Your task to perform on an android device: refresh tabs in the chrome app Image 0: 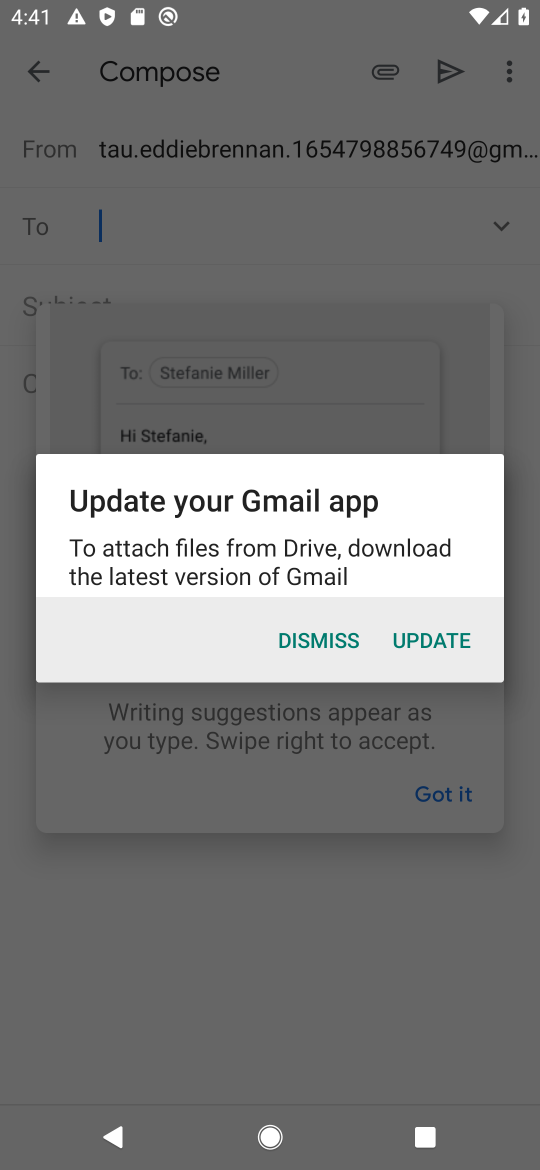
Step 0: press home button
Your task to perform on an android device: refresh tabs in the chrome app Image 1: 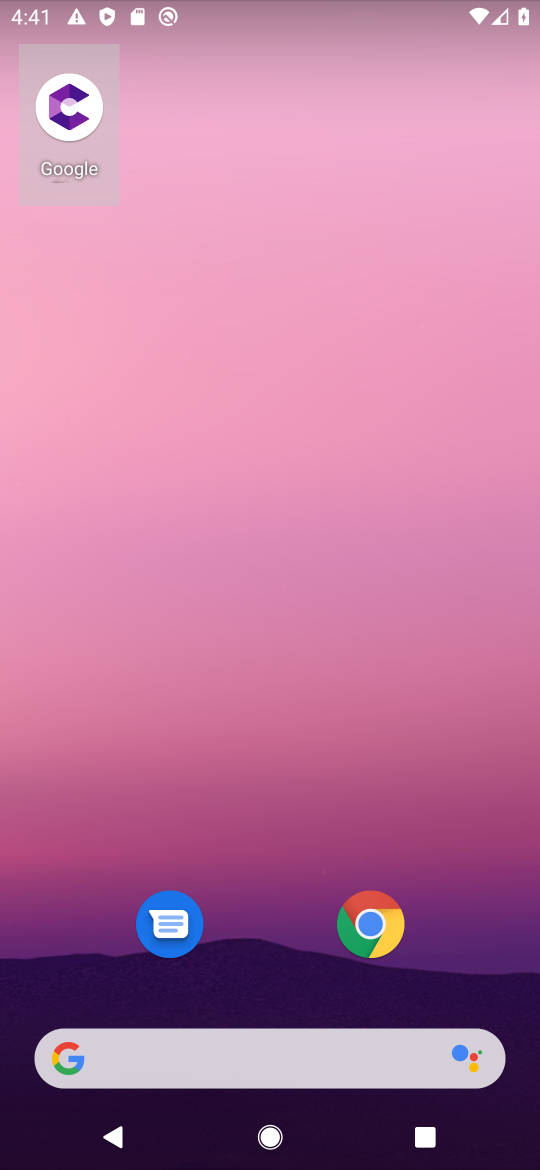
Step 1: click (398, 916)
Your task to perform on an android device: refresh tabs in the chrome app Image 2: 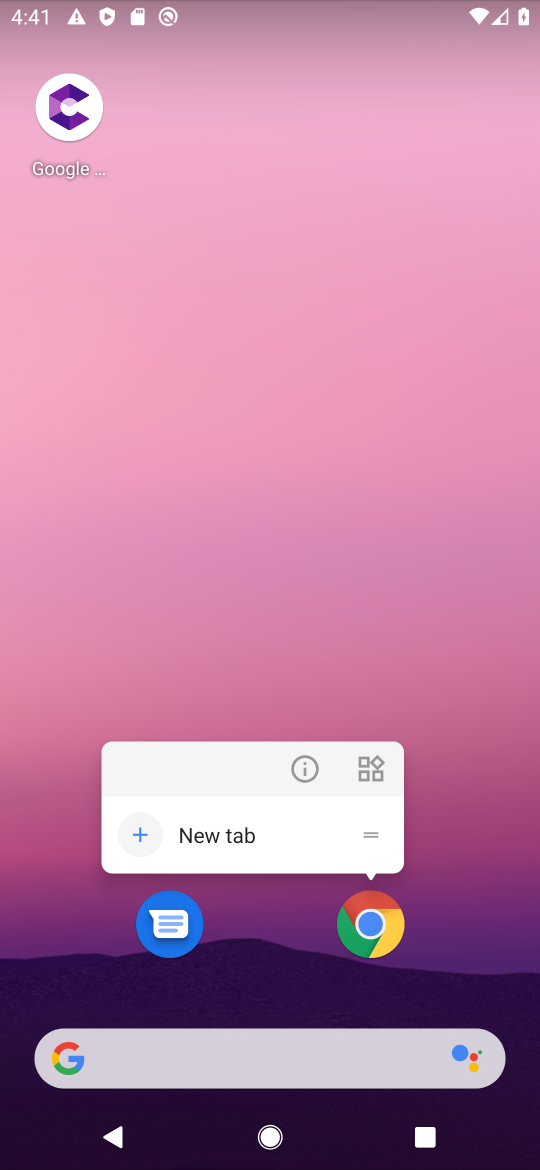
Step 2: click (391, 922)
Your task to perform on an android device: refresh tabs in the chrome app Image 3: 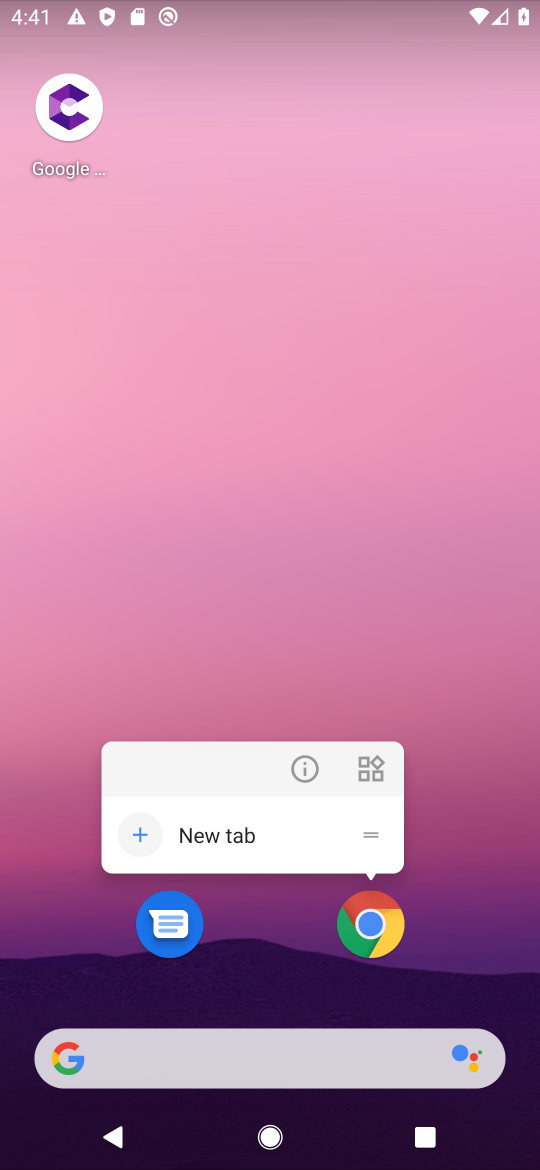
Step 3: click (391, 922)
Your task to perform on an android device: refresh tabs in the chrome app Image 4: 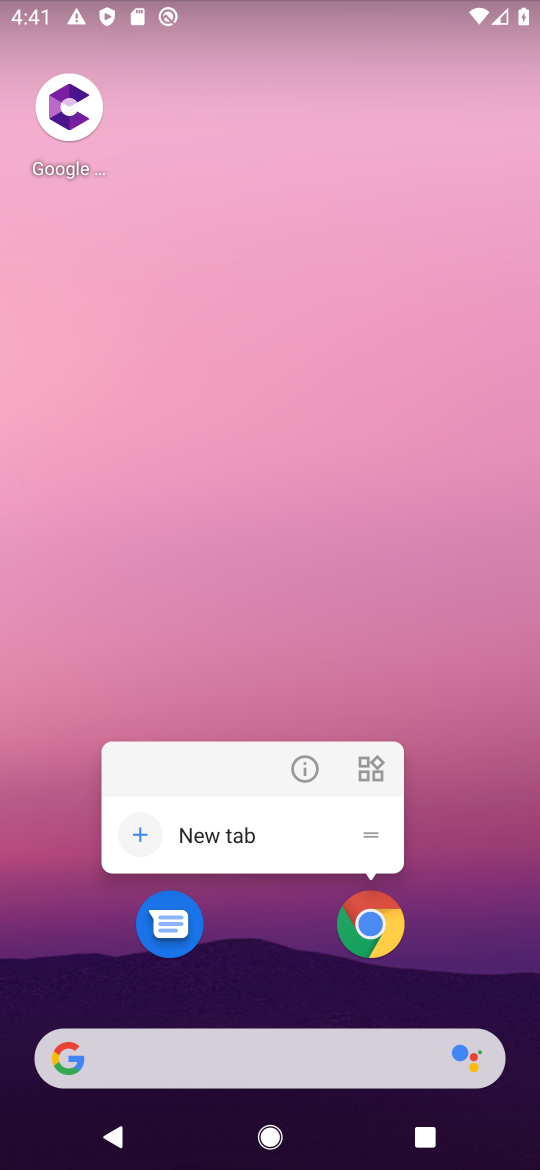
Step 4: click (389, 912)
Your task to perform on an android device: refresh tabs in the chrome app Image 5: 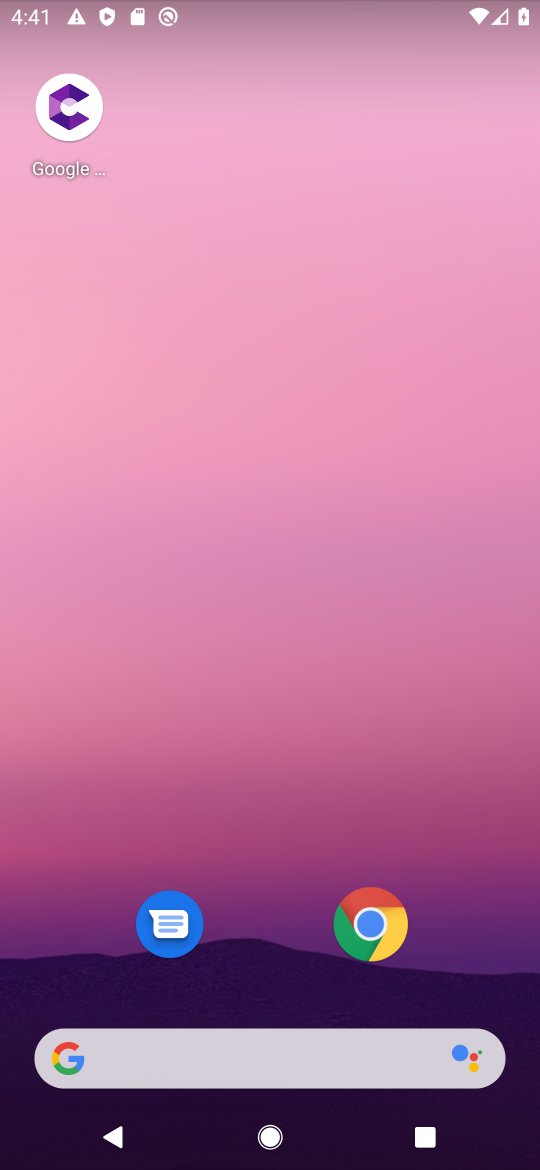
Step 5: click (389, 912)
Your task to perform on an android device: refresh tabs in the chrome app Image 6: 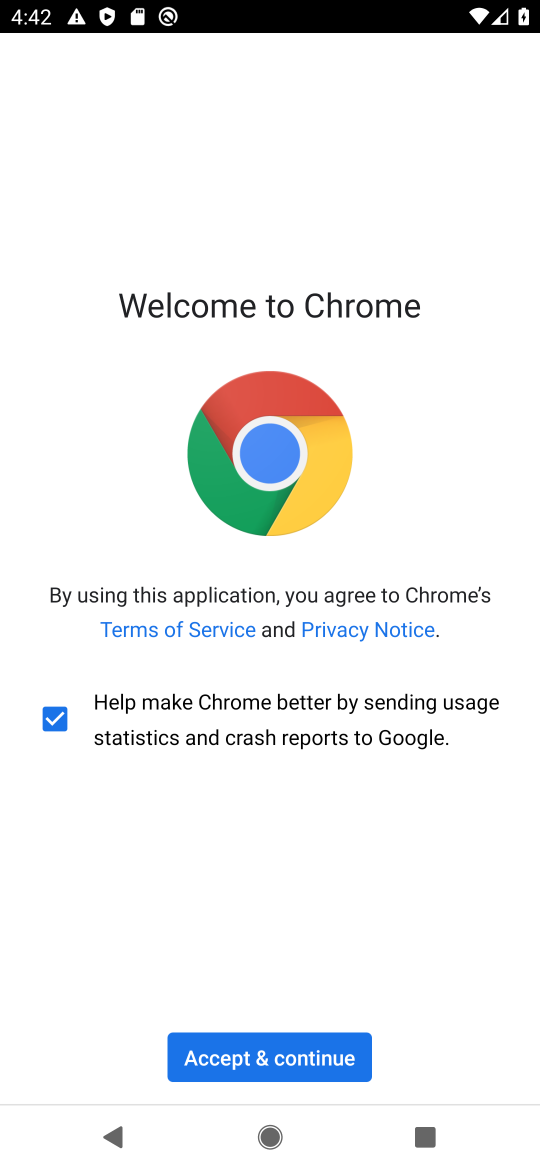
Step 6: click (241, 1064)
Your task to perform on an android device: refresh tabs in the chrome app Image 7: 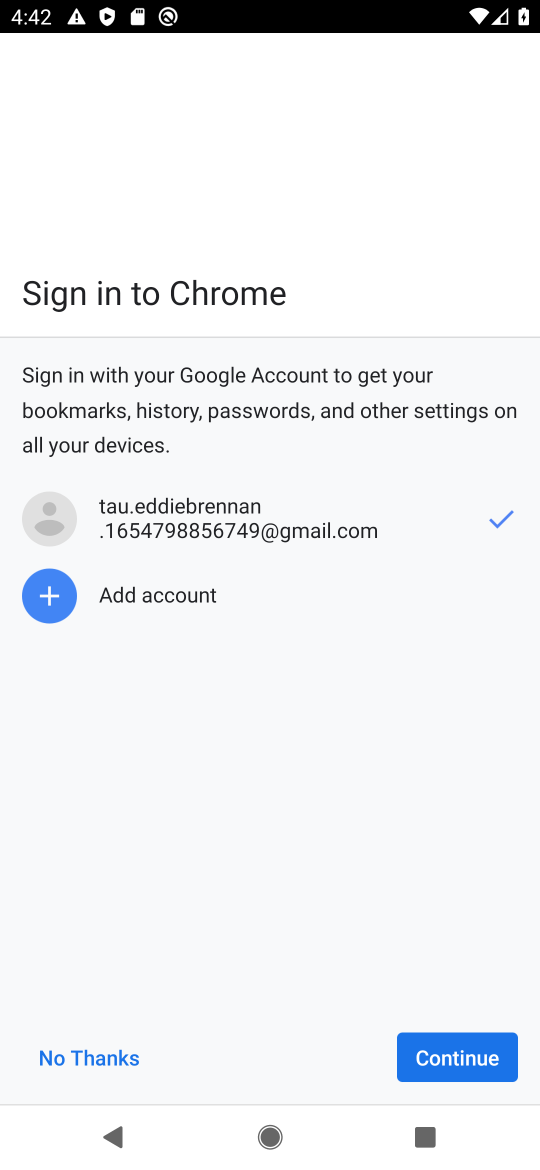
Step 7: click (474, 1063)
Your task to perform on an android device: refresh tabs in the chrome app Image 8: 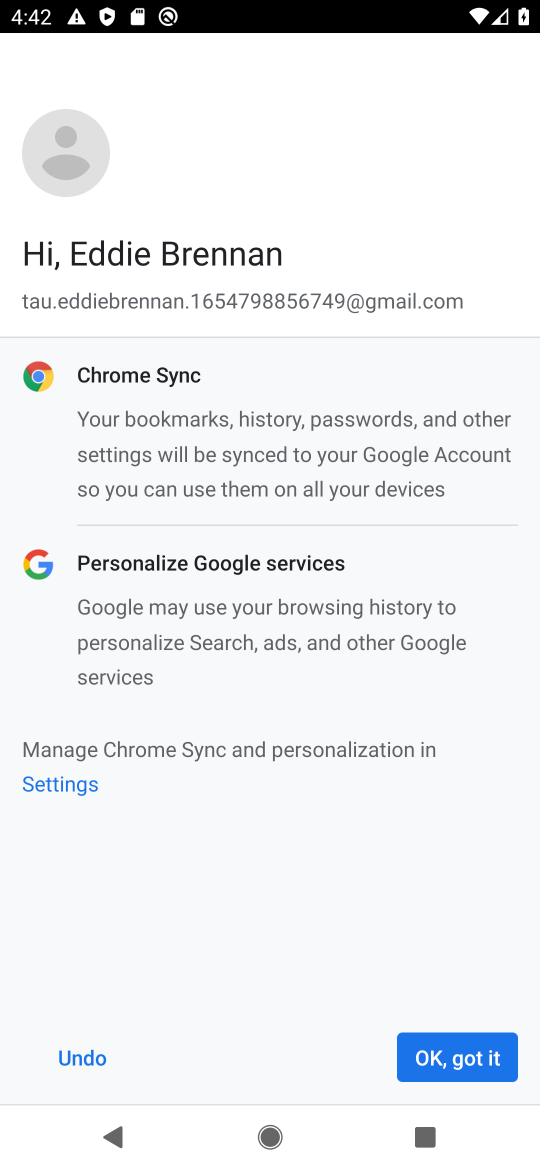
Step 8: click (444, 1060)
Your task to perform on an android device: refresh tabs in the chrome app Image 9: 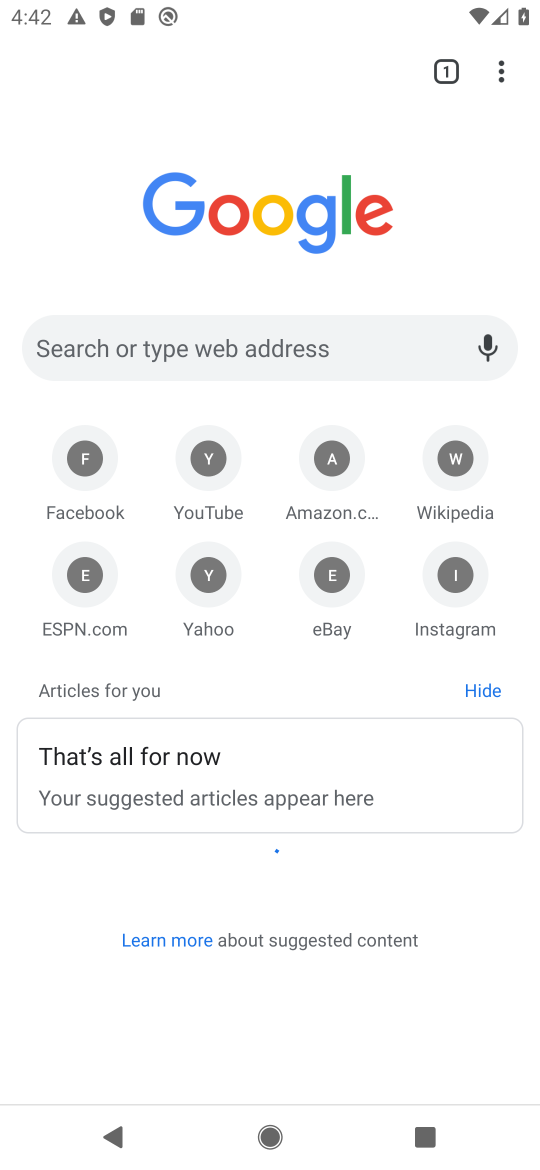
Step 9: click (494, 66)
Your task to perform on an android device: refresh tabs in the chrome app Image 10: 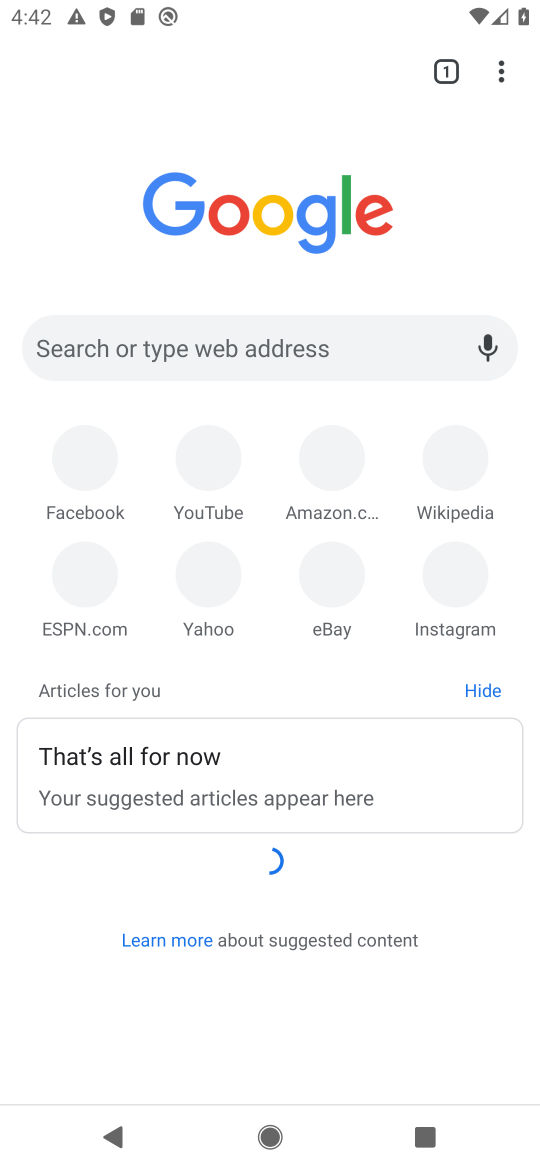
Step 10: click (497, 69)
Your task to perform on an android device: refresh tabs in the chrome app Image 11: 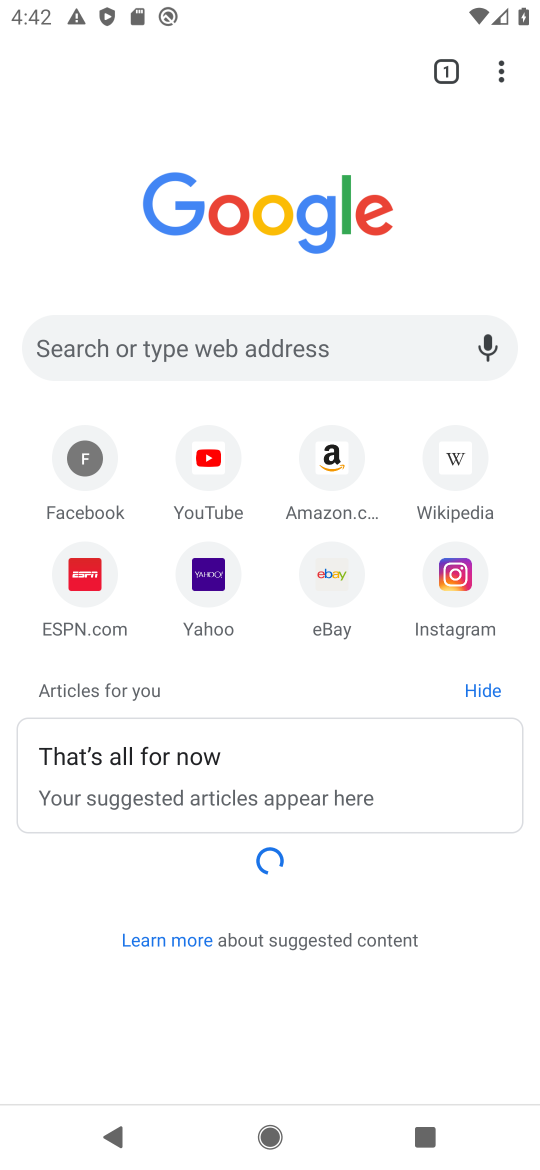
Step 11: click (499, 61)
Your task to perform on an android device: refresh tabs in the chrome app Image 12: 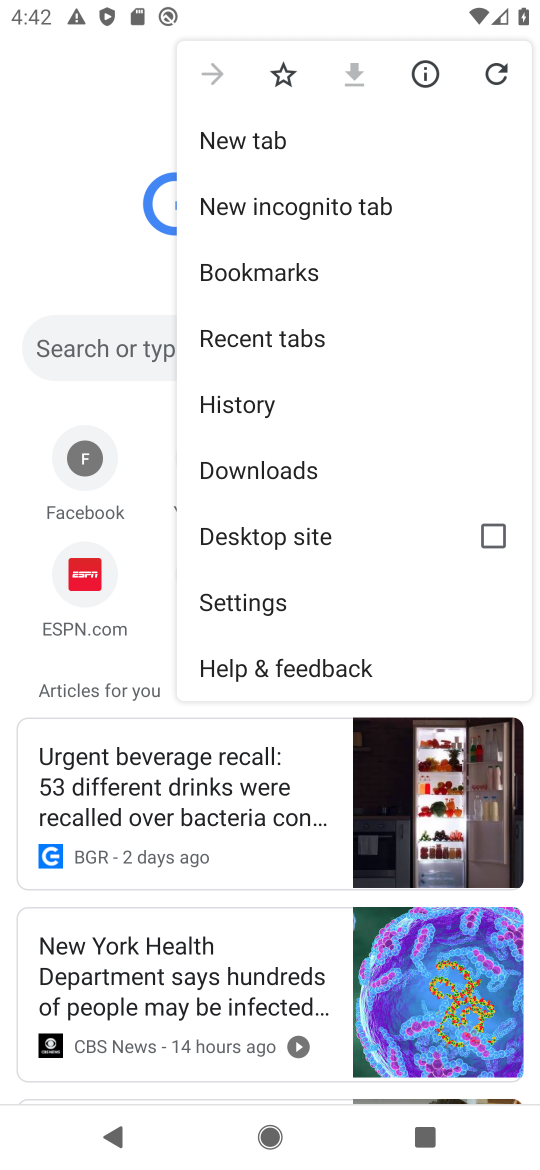
Step 12: click (306, 142)
Your task to perform on an android device: refresh tabs in the chrome app Image 13: 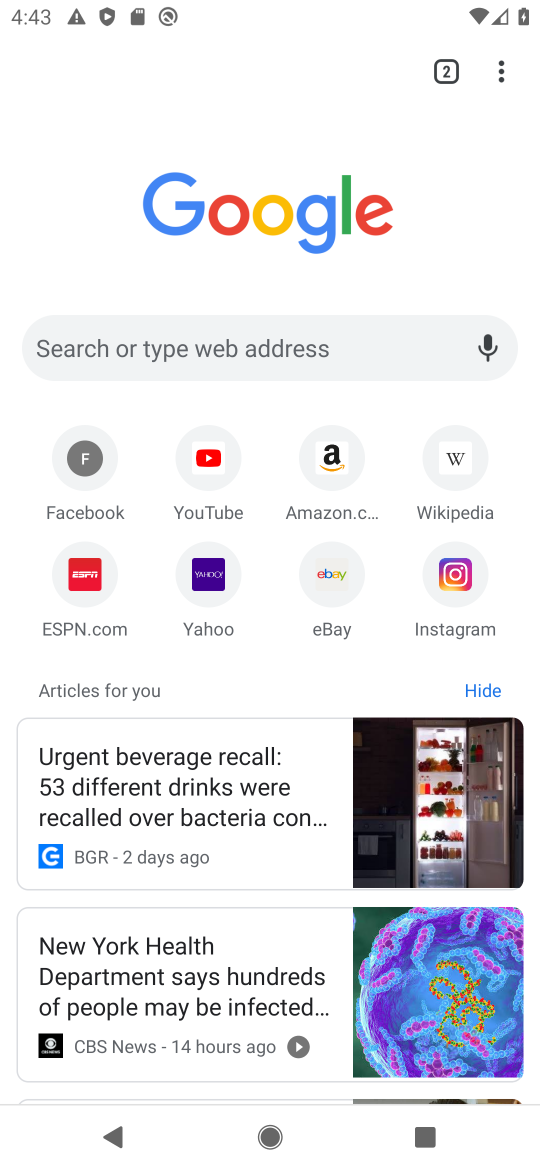
Step 13: task complete